Your task to perform on an android device: What's the news in Paraguay? Image 0: 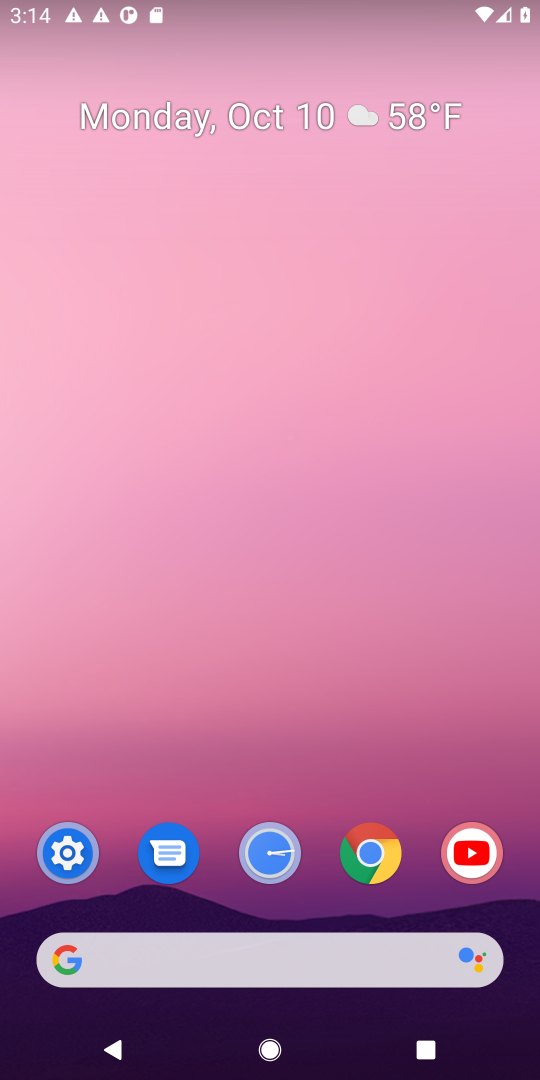
Step 0: drag from (300, 802) to (206, 26)
Your task to perform on an android device: What's the news in Paraguay? Image 1: 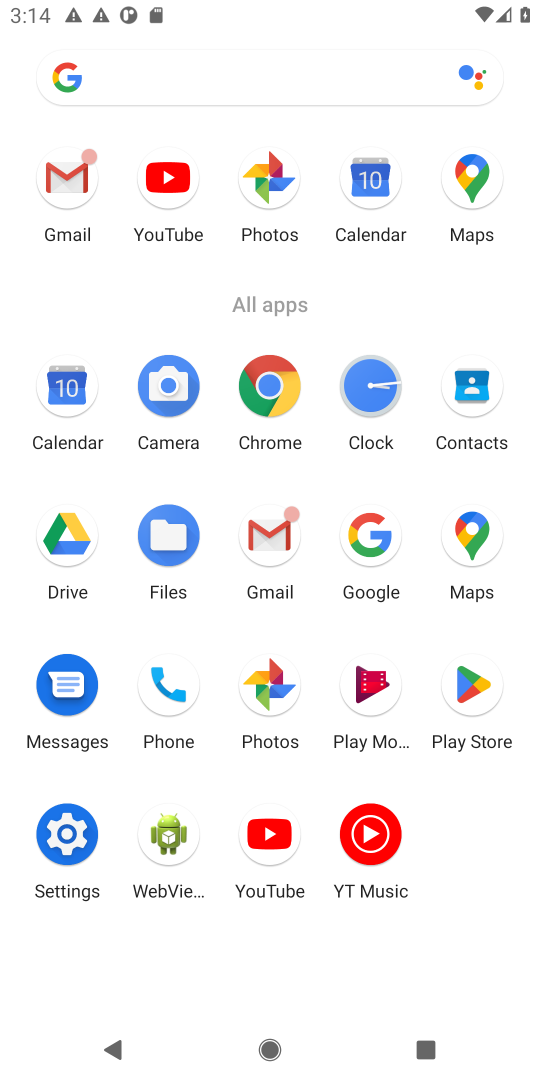
Step 1: click (257, 382)
Your task to perform on an android device: What's the news in Paraguay? Image 2: 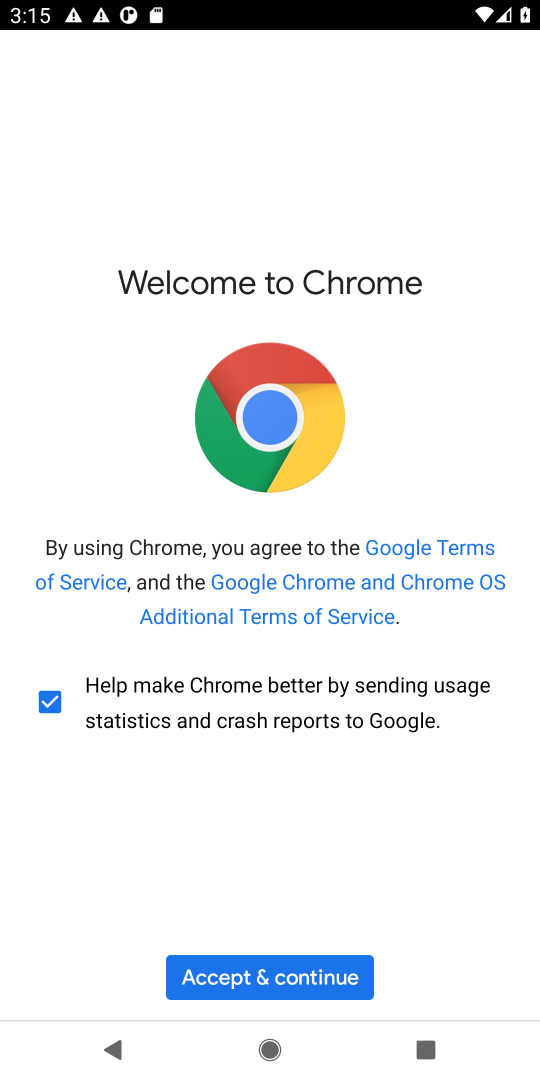
Step 2: click (287, 968)
Your task to perform on an android device: What's the news in Paraguay? Image 3: 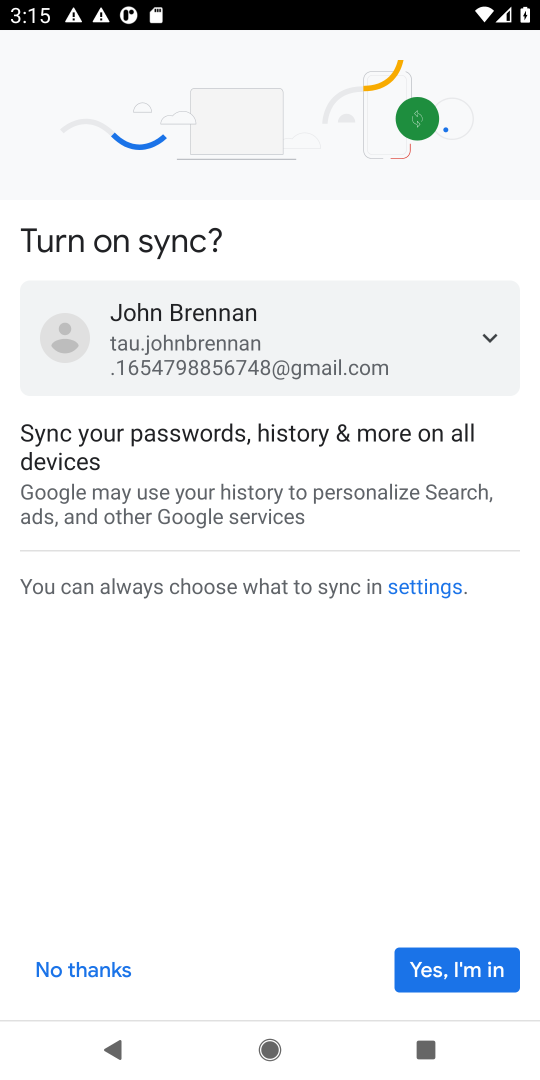
Step 3: click (426, 964)
Your task to perform on an android device: What's the news in Paraguay? Image 4: 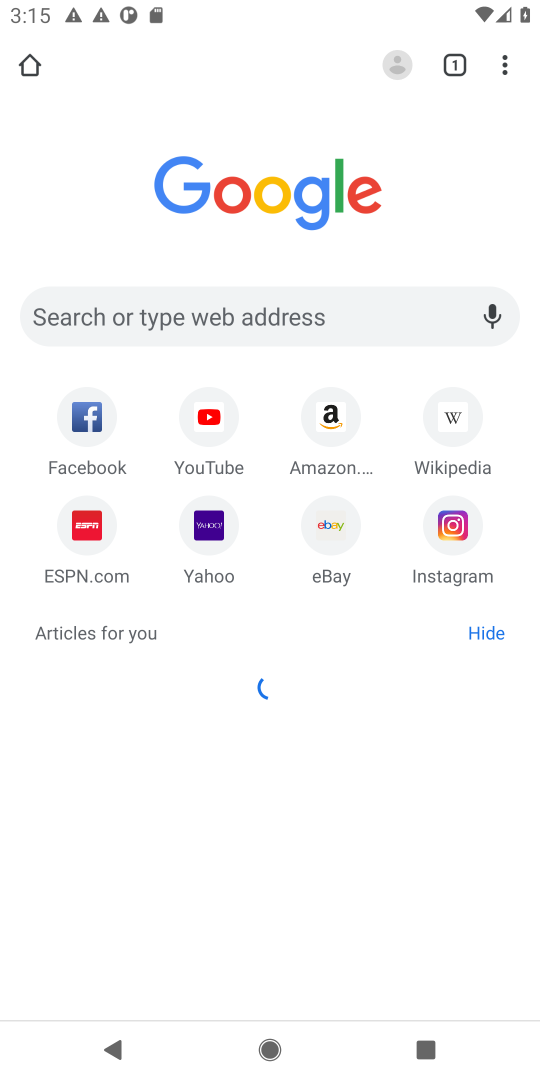
Step 4: click (85, 318)
Your task to perform on an android device: What's the news in Paraguay? Image 5: 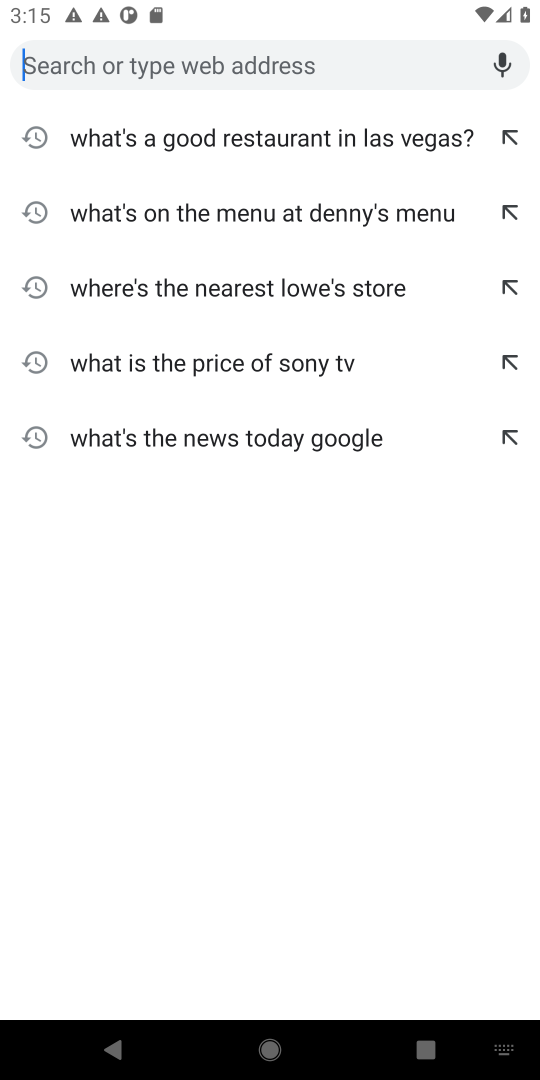
Step 5: type "What's the news in Paraguay?"
Your task to perform on an android device: What's the news in Paraguay? Image 6: 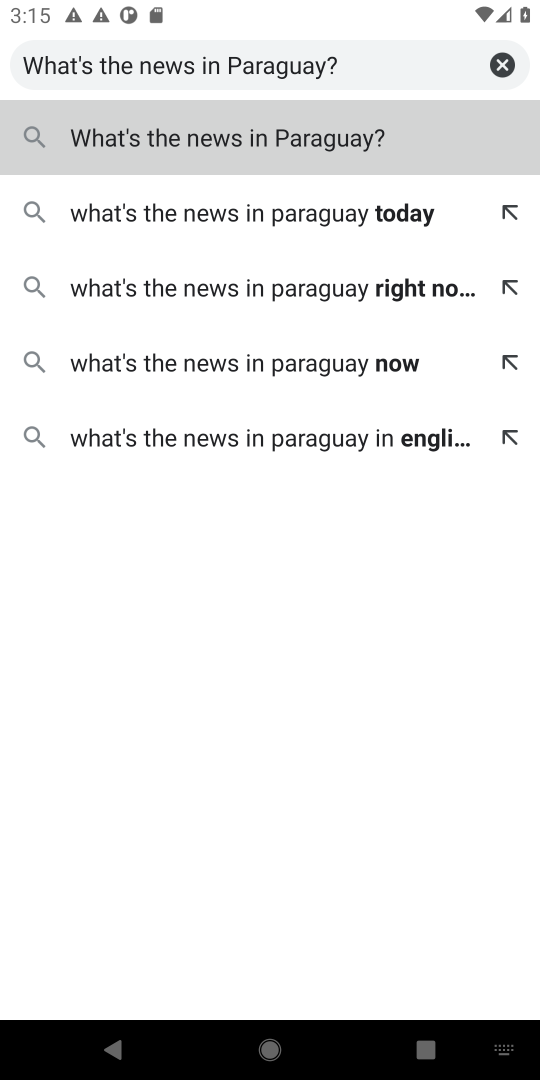
Step 6: click (267, 146)
Your task to perform on an android device: What's the news in Paraguay? Image 7: 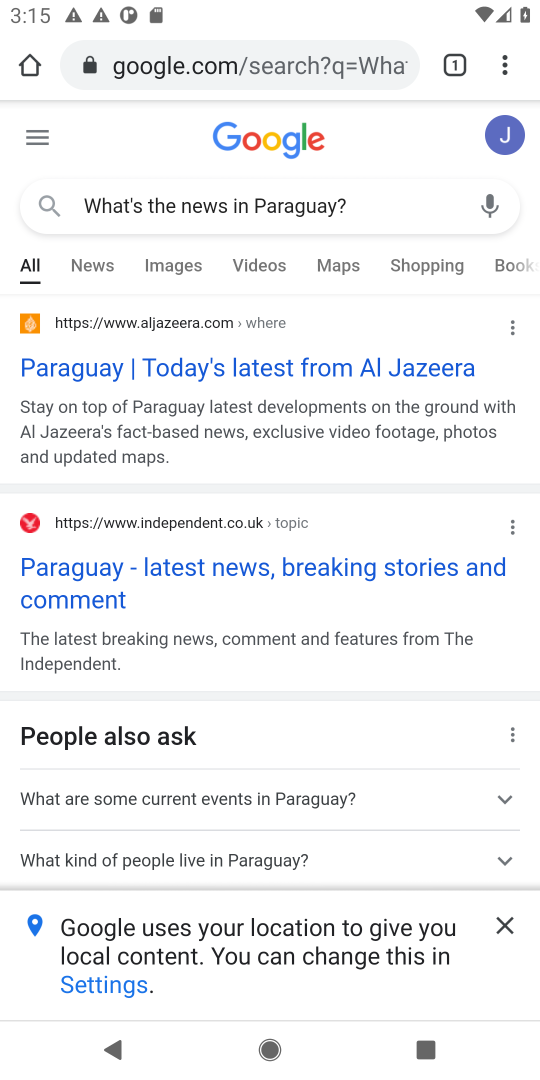
Step 7: click (351, 369)
Your task to perform on an android device: What's the news in Paraguay? Image 8: 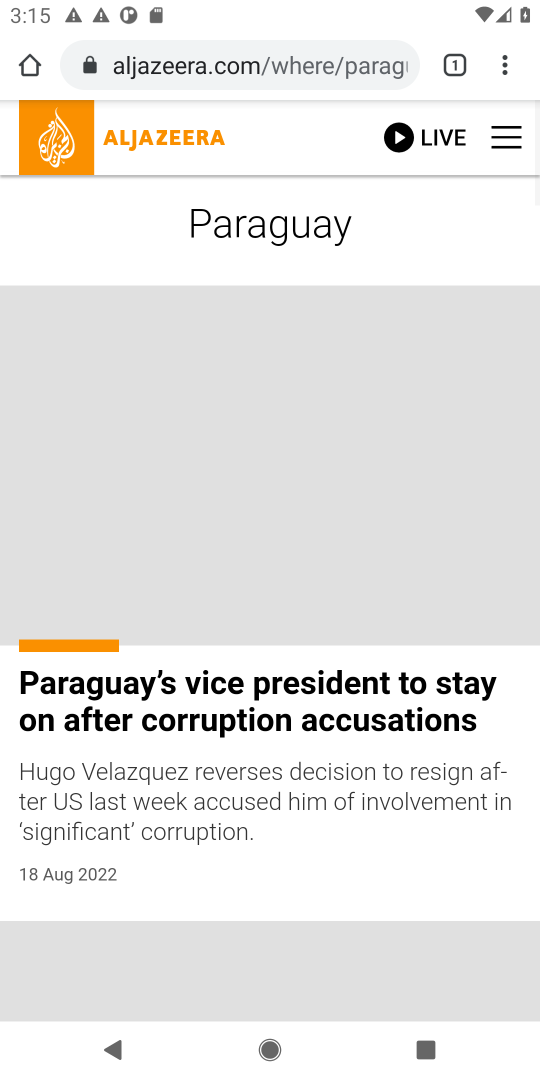
Step 8: task complete